Your task to perform on an android device: Search for "bose soundlink" on ebay.com, select the first entry, add it to the cart, then select checkout. Image 0: 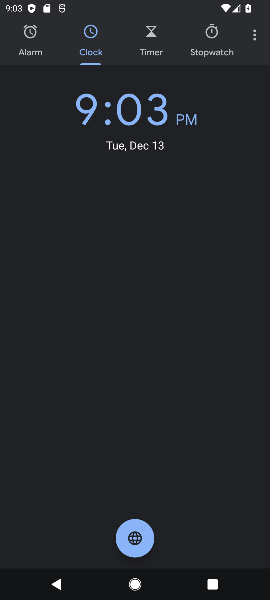
Step 0: press home button
Your task to perform on an android device: Search for "bose soundlink" on ebay.com, select the first entry, add it to the cart, then select checkout. Image 1: 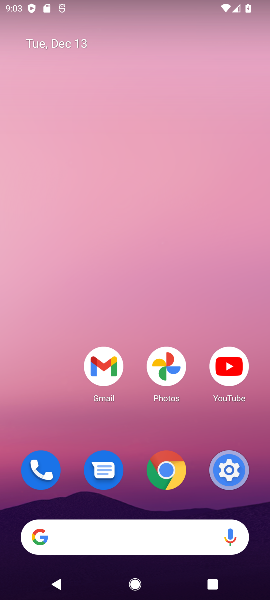
Step 1: click (66, 538)
Your task to perform on an android device: Search for "bose soundlink" on ebay.com, select the first entry, add it to the cart, then select checkout. Image 2: 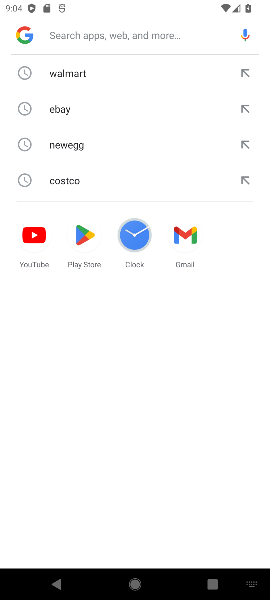
Step 2: type "ebay.com"
Your task to perform on an android device: Search for "bose soundlink" on ebay.com, select the first entry, add it to the cart, then select checkout. Image 3: 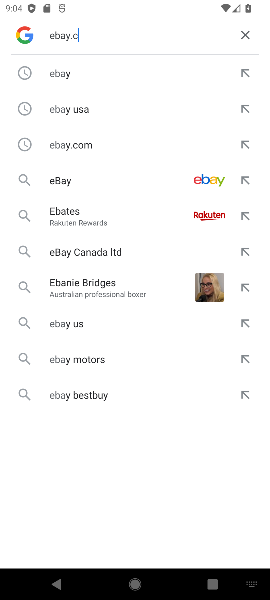
Step 3: press enter
Your task to perform on an android device: Search for "bose soundlink" on ebay.com, select the first entry, add it to the cart, then select checkout. Image 4: 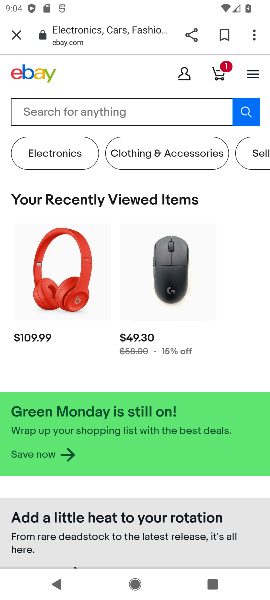
Step 4: click (61, 108)
Your task to perform on an android device: Search for "bose soundlink" on ebay.com, select the first entry, add it to the cart, then select checkout. Image 5: 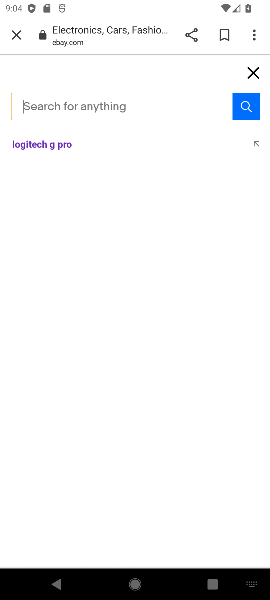
Step 5: press enter
Your task to perform on an android device: Search for "bose soundlink" on ebay.com, select the first entry, add it to the cart, then select checkout. Image 6: 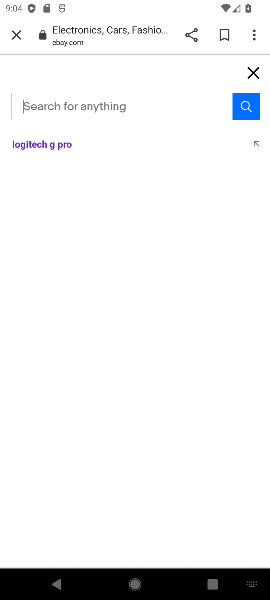
Step 6: type "bose soundlink"
Your task to perform on an android device: Search for "bose soundlink" on ebay.com, select the first entry, add it to the cart, then select checkout. Image 7: 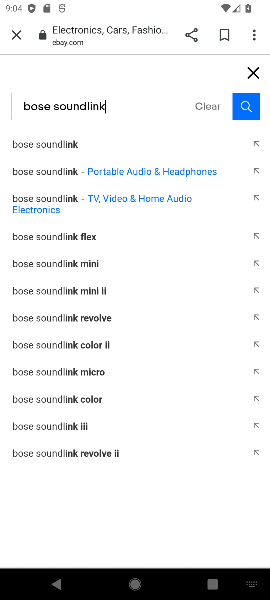
Step 7: click (246, 107)
Your task to perform on an android device: Search for "bose soundlink" on ebay.com, select the first entry, add it to the cart, then select checkout. Image 8: 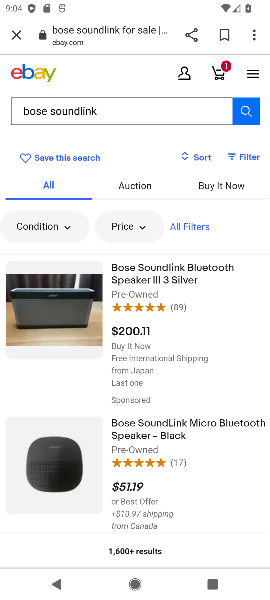
Step 8: click (145, 282)
Your task to perform on an android device: Search for "bose soundlink" on ebay.com, select the first entry, add it to the cart, then select checkout. Image 9: 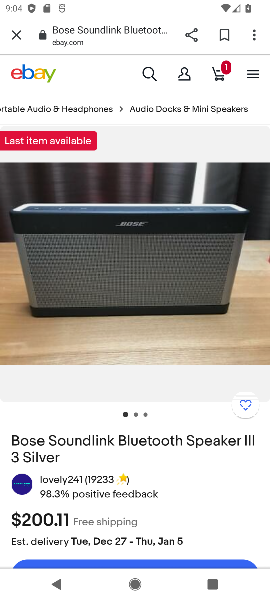
Step 9: drag from (158, 498) to (158, 188)
Your task to perform on an android device: Search for "bose soundlink" on ebay.com, select the first entry, add it to the cart, then select checkout. Image 10: 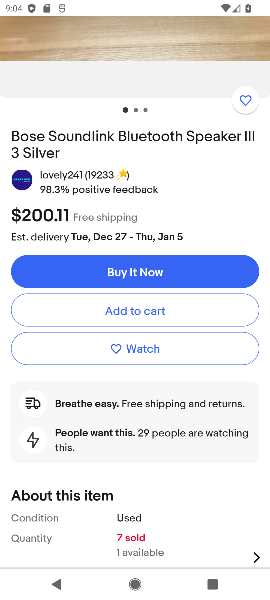
Step 10: click (120, 311)
Your task to perform on an android device: Search for "bose soundlink" on ebay.com, select the first entry, add it to the cart, then select checkout. Image 11: 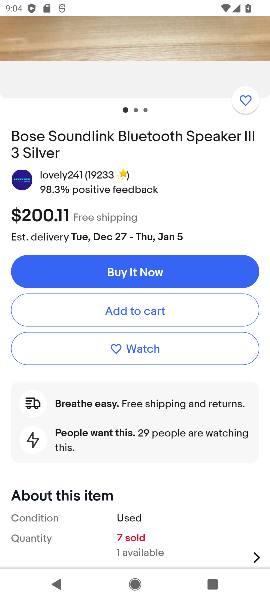
Step 11: click (130, 308)
Your task to perform on an android device: Search for "bose soundlink" on ebay.com, select the first entry, add it to the cart, then select checkout. Image 12: 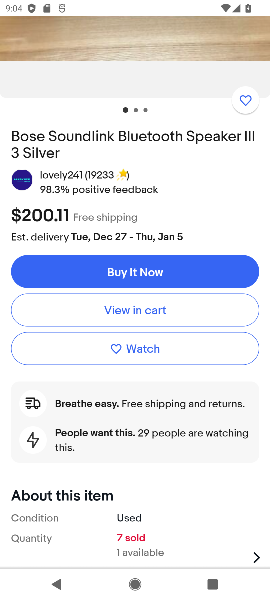
Step 12: click (128, 310)
Your task to perform on an android device: Search for "bose soundlink" on ebay.com, select the first entry, add it to the cart, then select checkout. Image 13: 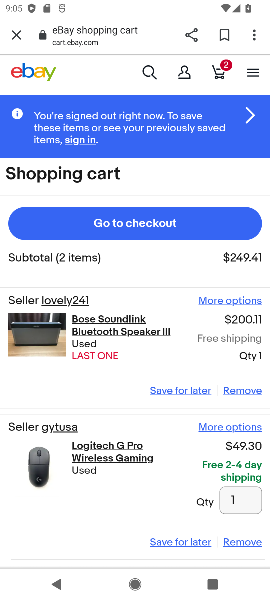
Step 13: click (114, 220)
Your task to perform on an android device: Search for "bose soundlink" on ebay.com, select the first entry, add it to the cart, then select checkout. Image 14: 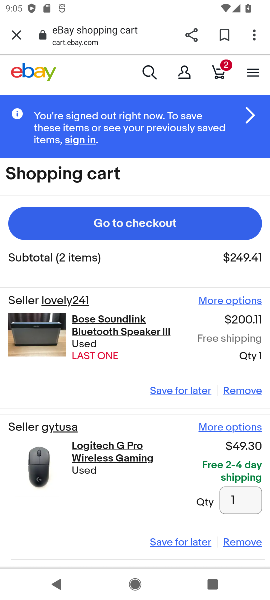
Step 14: click (101, 226)
Your task to perform on an android device: Search for "bose soundlink" on ebay.com, select the first entry, add it to the cart, then select checkout. Image 15: 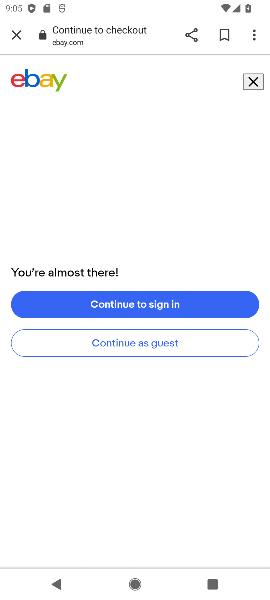
Step 15: task complete